Your task to perform on an android device: Turn off the flashlight Image 0: 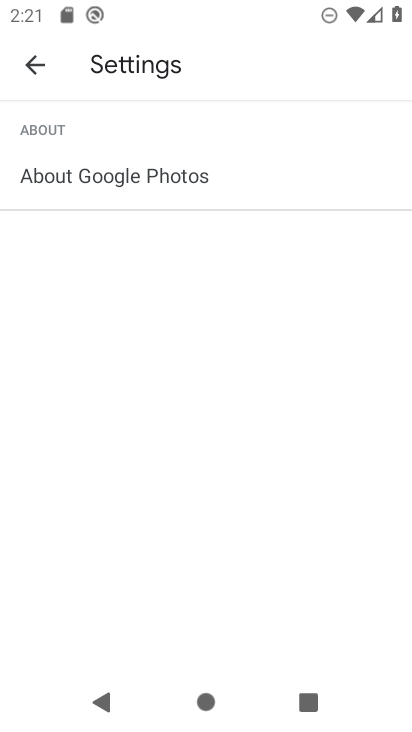
Step 0: press home button
Your task to perform on an android device: Turn off the flashlight Image 1: 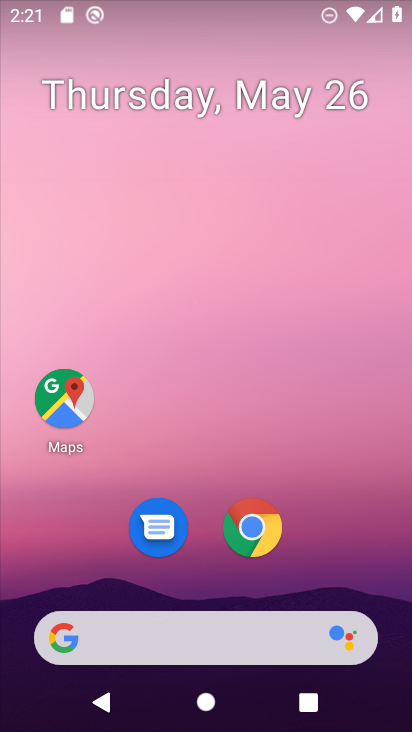
Step 1: drag from (170, 561) to (305, 56)
Your task to perform on an android device: Turn off the flashlight Image 2: 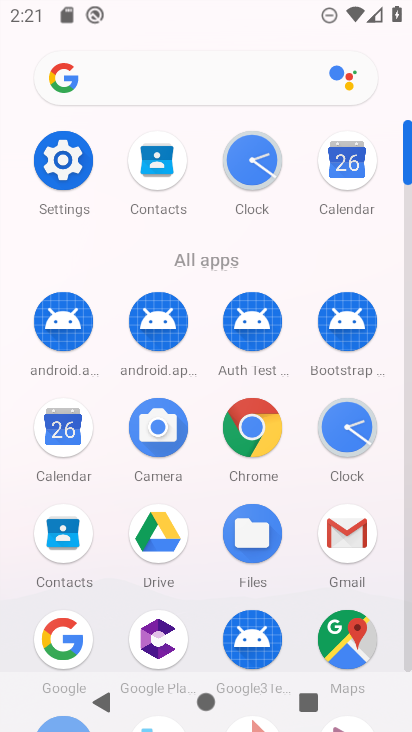
Step 2: click (49, 172)
Your task to perform on an android device: Turn off the flashlight Image 3: 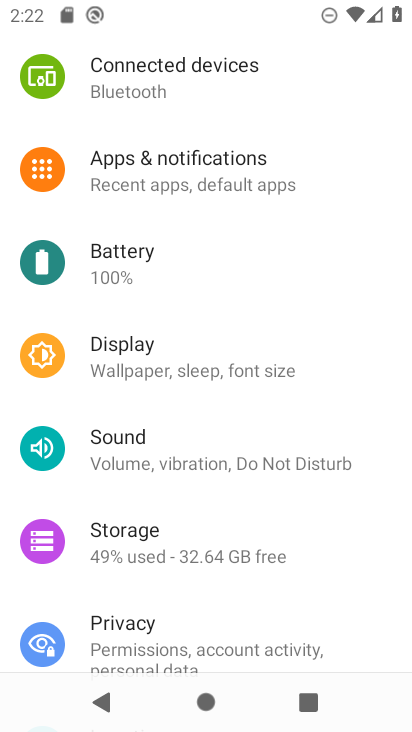
Step 3: drag from (160, 243) to (160, 695)
Your task to perform on an android device: Turn off the flashlight Image 4: 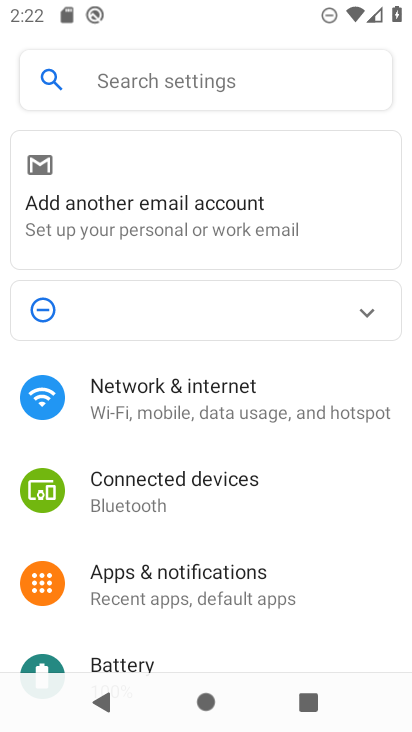
Step 4: click (139, 74)
Your task to perform on an android device: Turn off the flashlight Image 5: 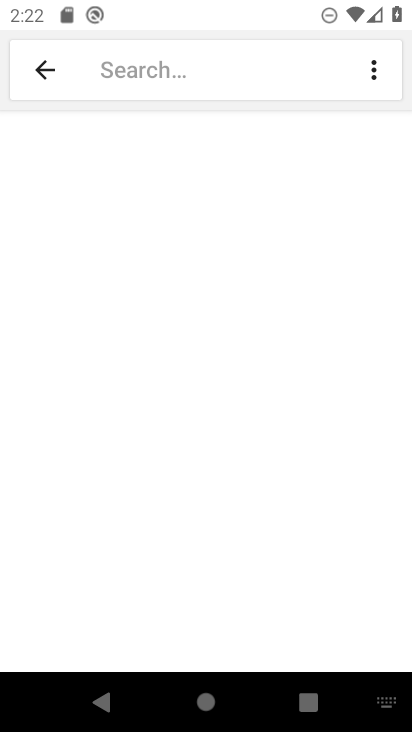
Step 5: type "flashlight"
Your task to perform on an android device: Turn off the flashlight Image 6: 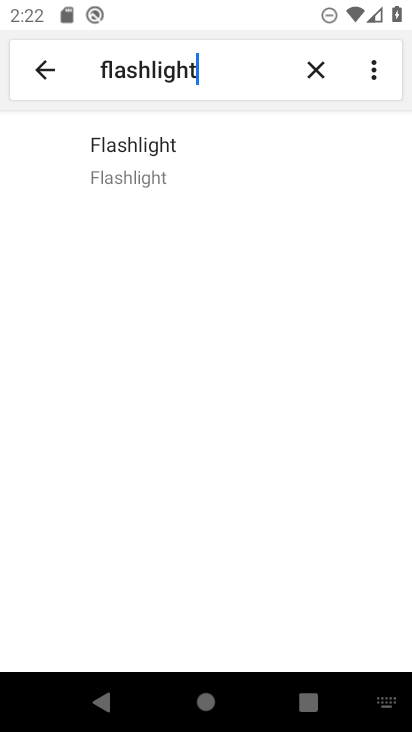
Step 6: click (138, 171)
Your task to perform on an android device: Turn off the flashlight Image 7: 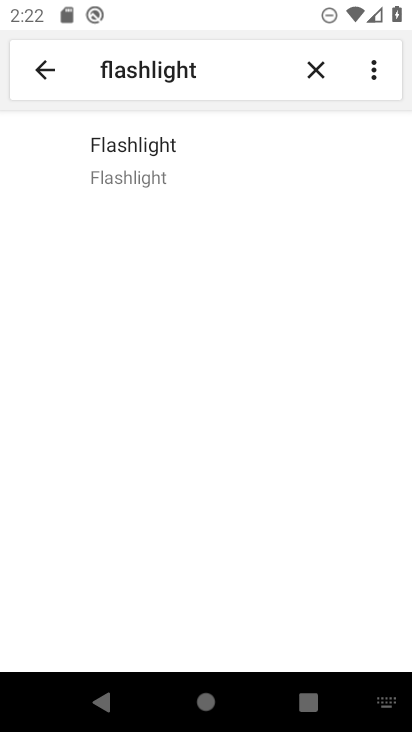
Step 7: task complete